Your task to perform on an android device: open a bookmark in the chrome app Image 0: 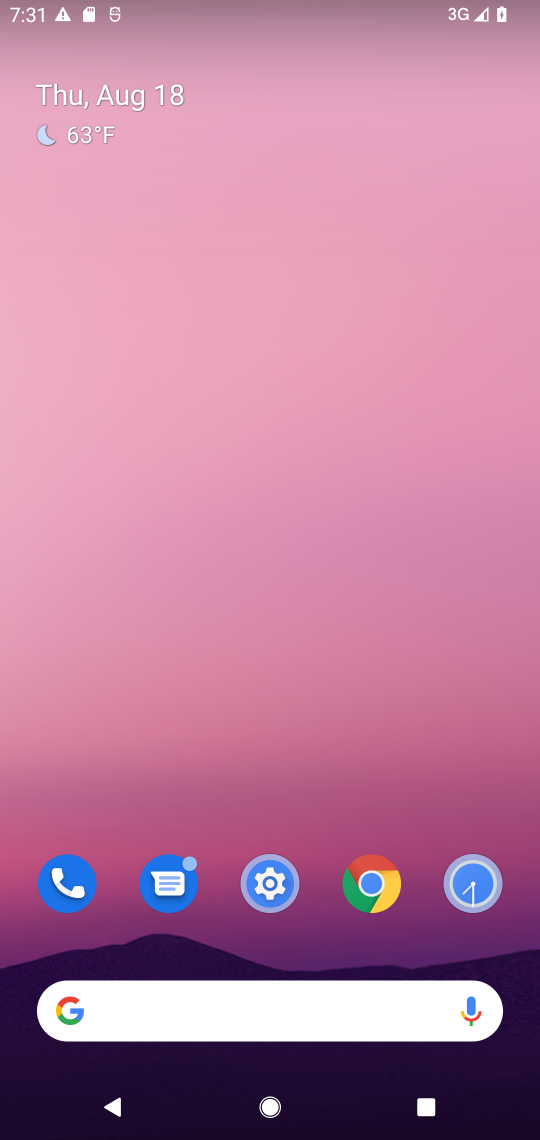
Step 0: click (358, 884)
Your task to perform on an android device: open a bookmark in the chrome app Image 1: 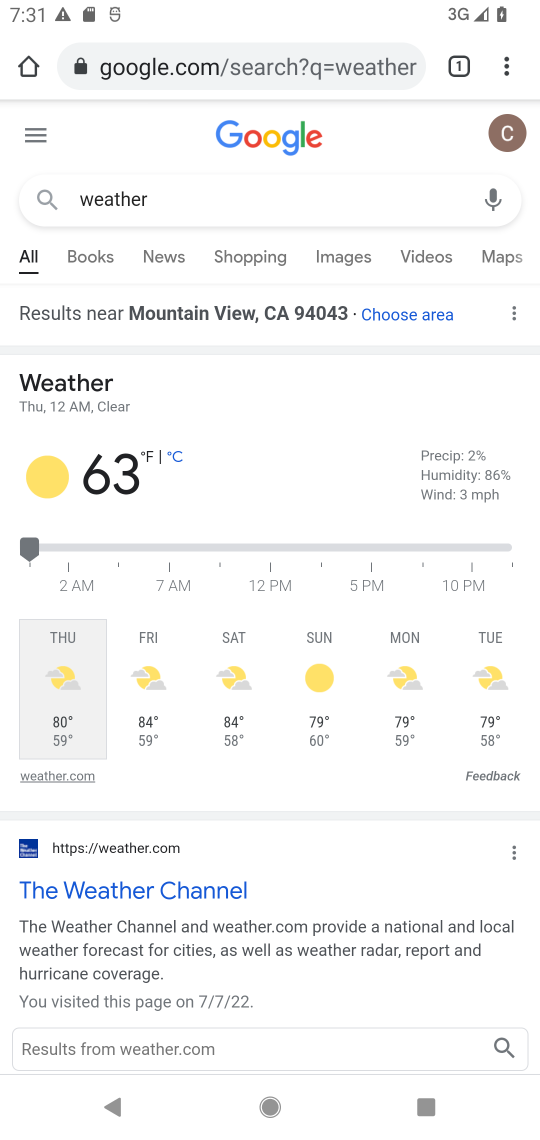
Step 1: click (505, 74)
Your task to perform on an android device: open a bookmark in the chrome app Image 2: 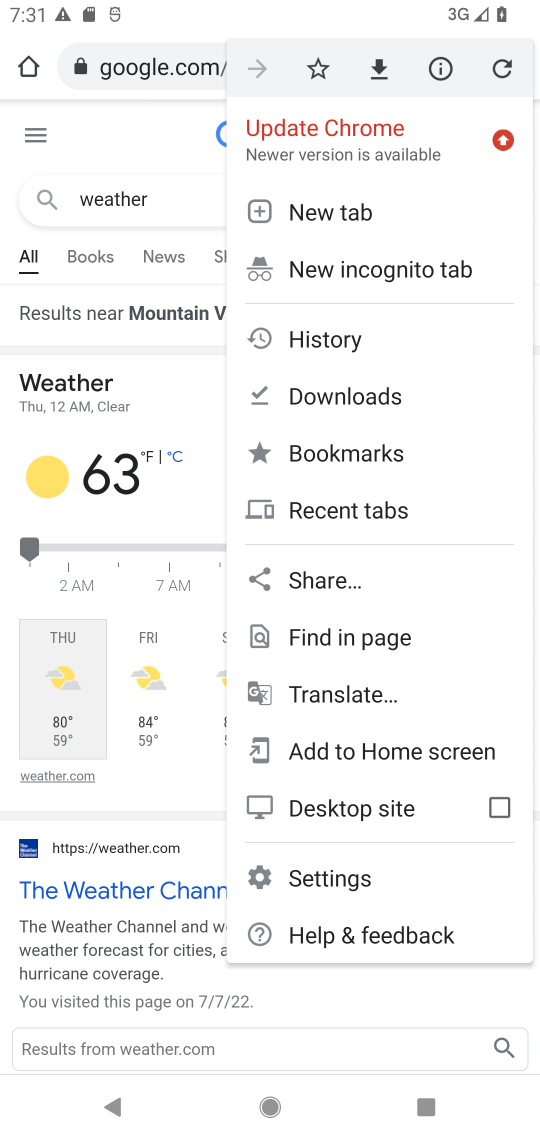
Step 2: click (327, 458)
Your task to perform on an android device: open a bookmark in the chrome app Image 3: 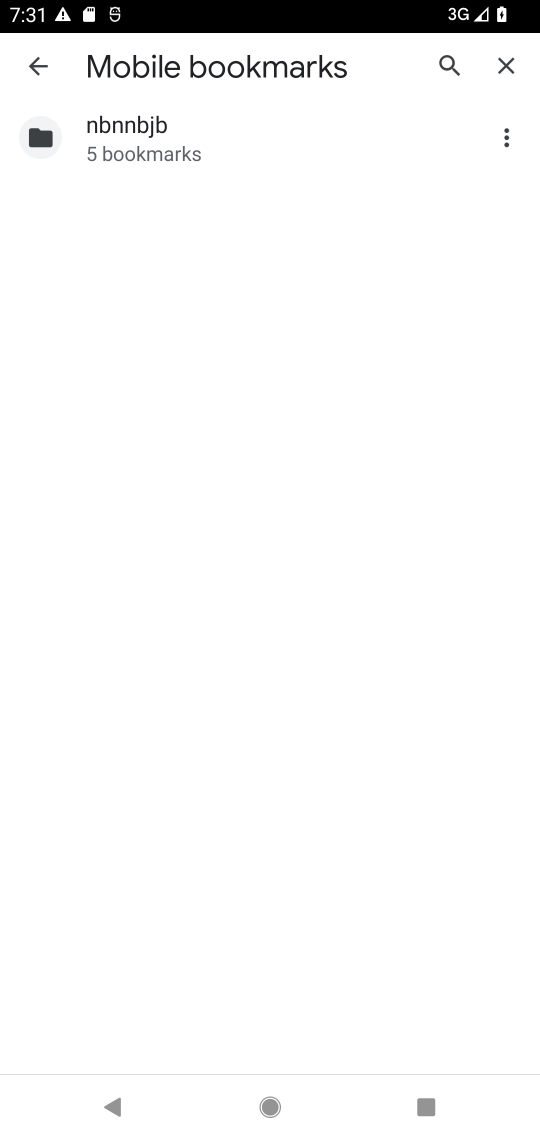
Step 3: task complete